Your task to perform on an android device: add a label to a message in the gmail app Image 0: 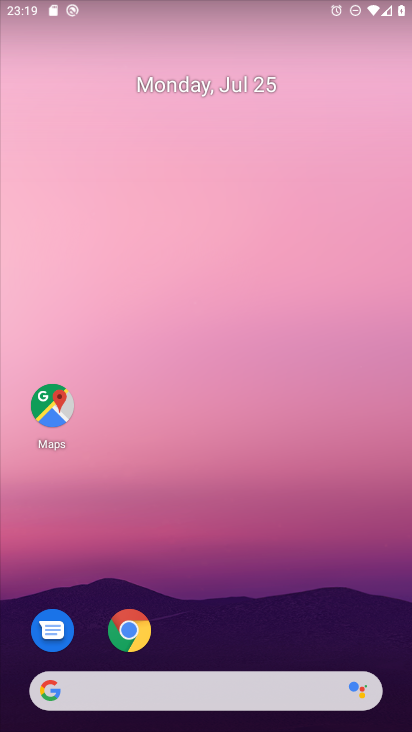
Step 0: drag from (257, 596) to (48, 14)
Your task to perform on an android device: add a label to a message in the gmail app Image 1: 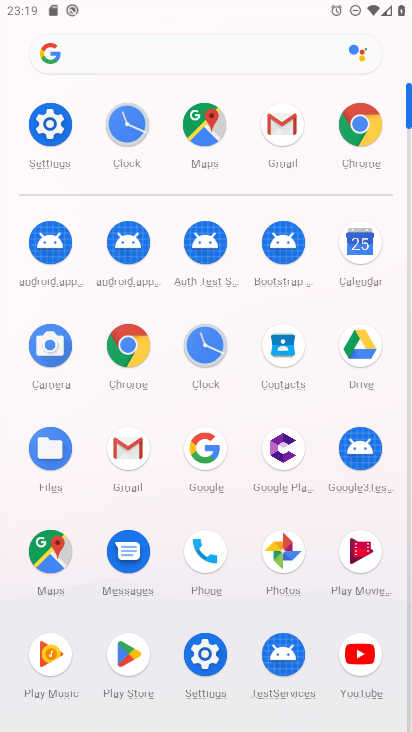
Step 1: click (281, 124)
Your task to perform on an android device: add a label to a message in the gmail app Image 2: 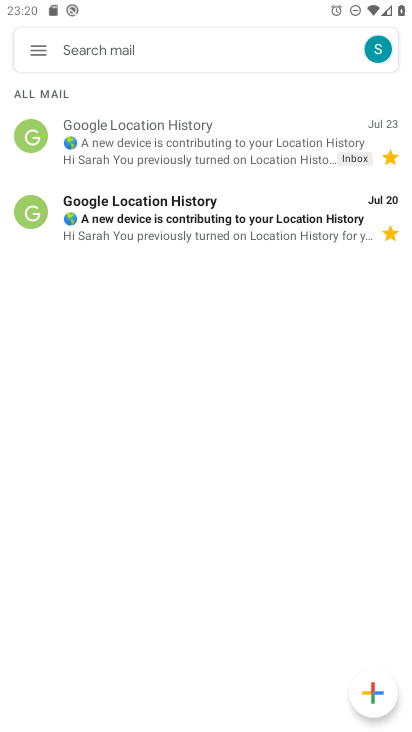
Step 2: click (50, 50)
Your task to perform on an android device: add a label to a message in the gmail app Image 3: 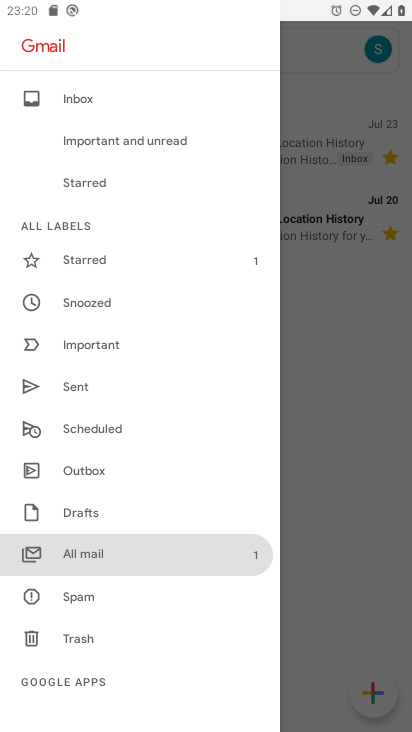
Step 3: click (314, 326)
Your task to perform on an android device: add a label to a message in the gmail app Image 4: 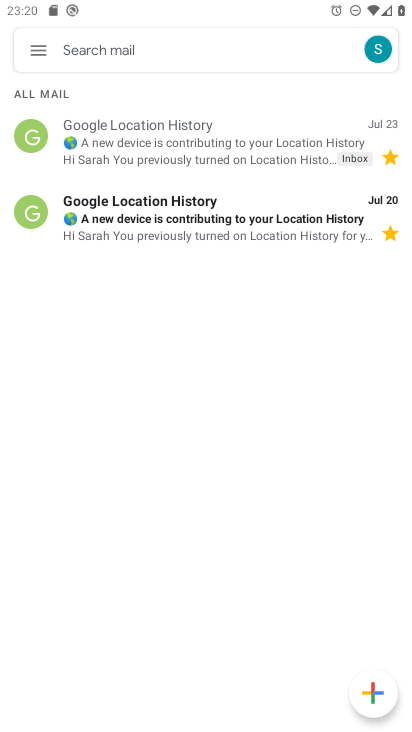
Step 4: click (250, 139)
Your task to perform on an android device: add a label to a message in the gmail app Image 5: 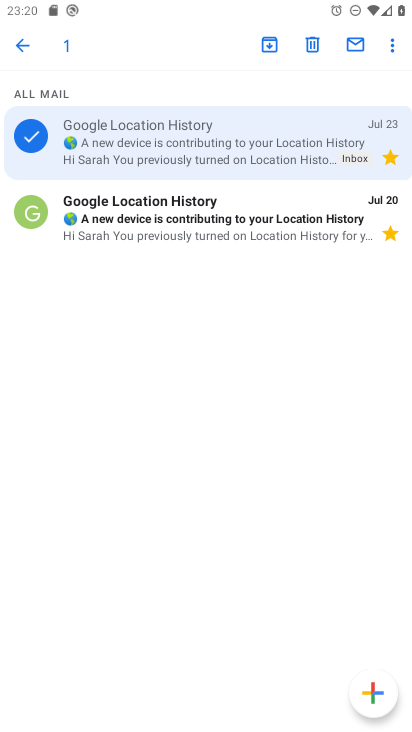
Step 5: click (388, 41)
Your task to perform on an android device: add a label to a message in the gmail app Image 6: 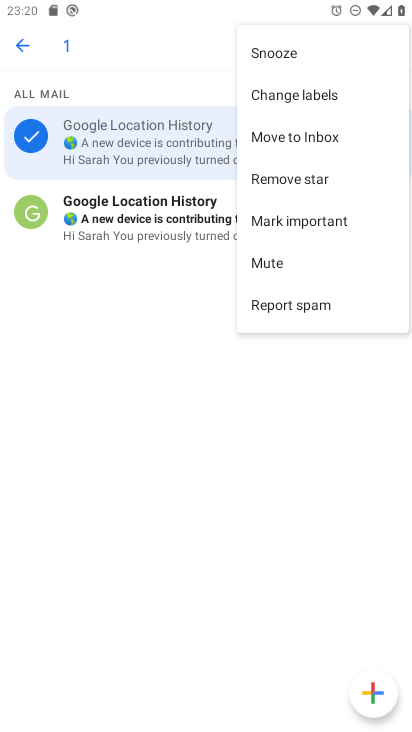
Step 6: task complete